Your task to perform on an android device: Open a new window in Chrome Image 0: 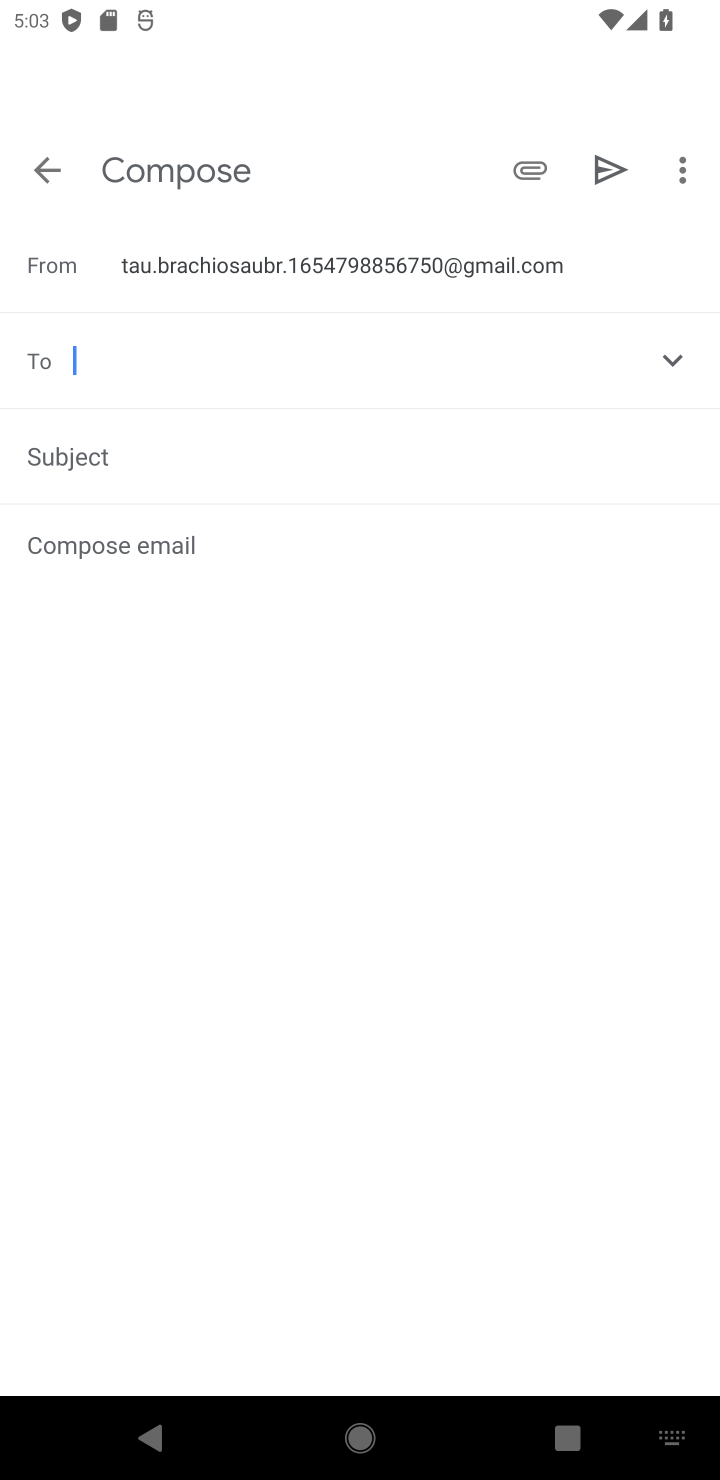
Step 0: press home button
Your task to perform on an android device: Open a new window in Chrome Image 1: 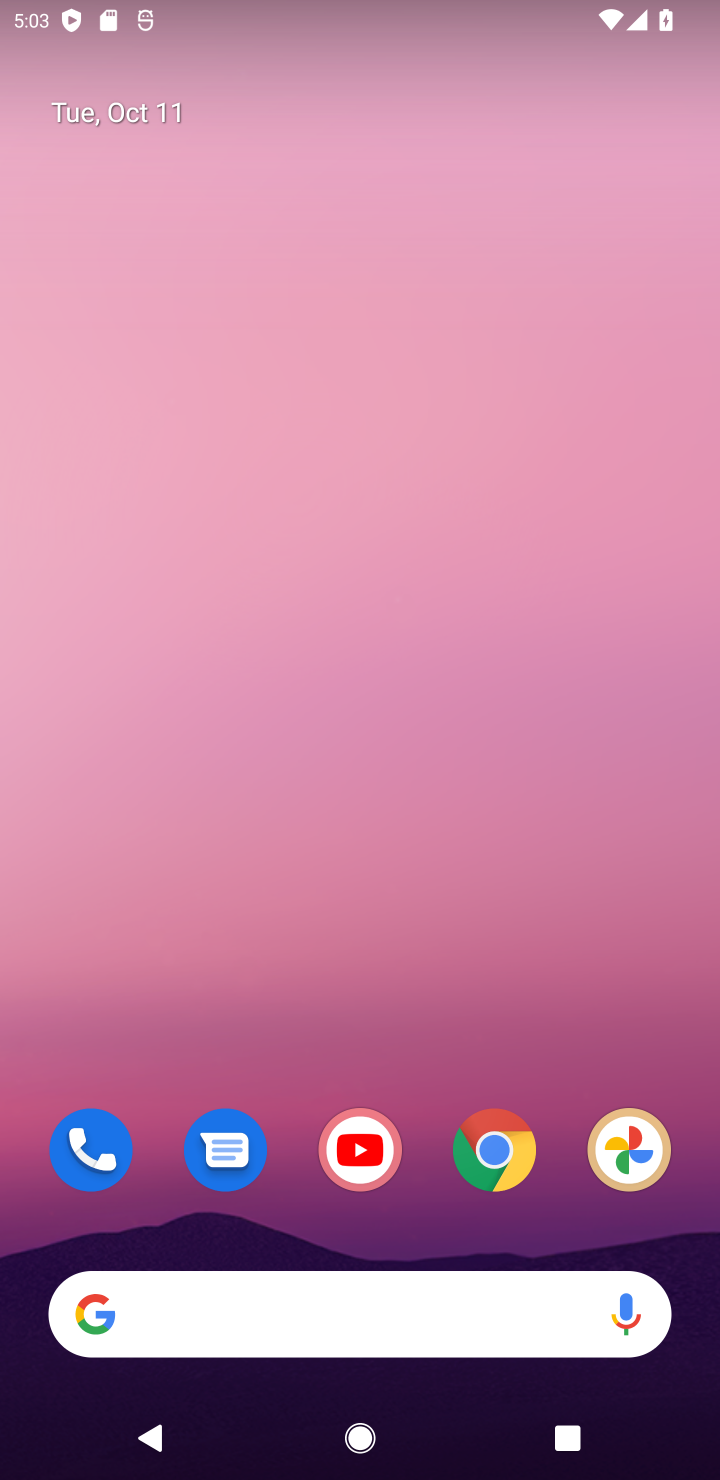
Step 1: click (506, 1151)
Your task to perform on an android device: Open a new window in Chrome Image 2: 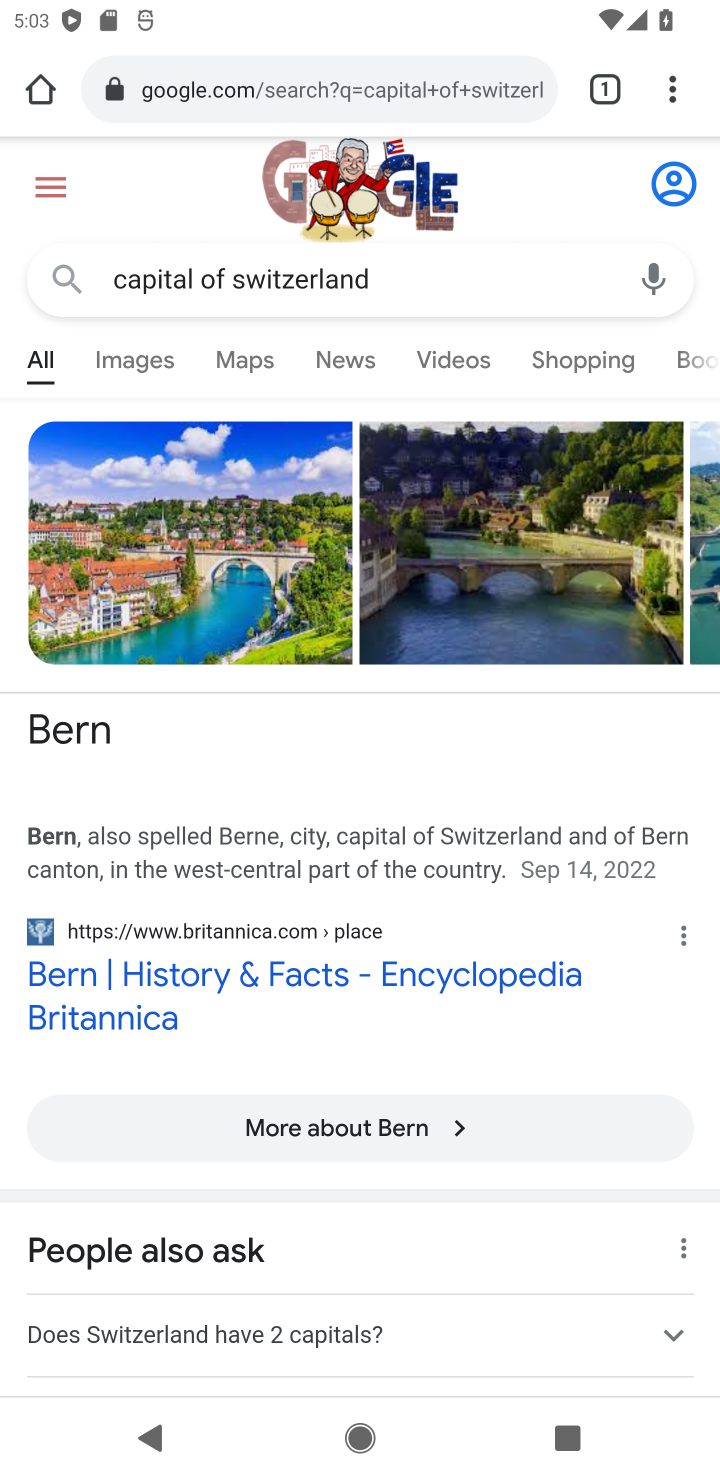
Step 2: click (674, 93)
Your task to perform on an android device: Open a new window in Chrome Image 3: 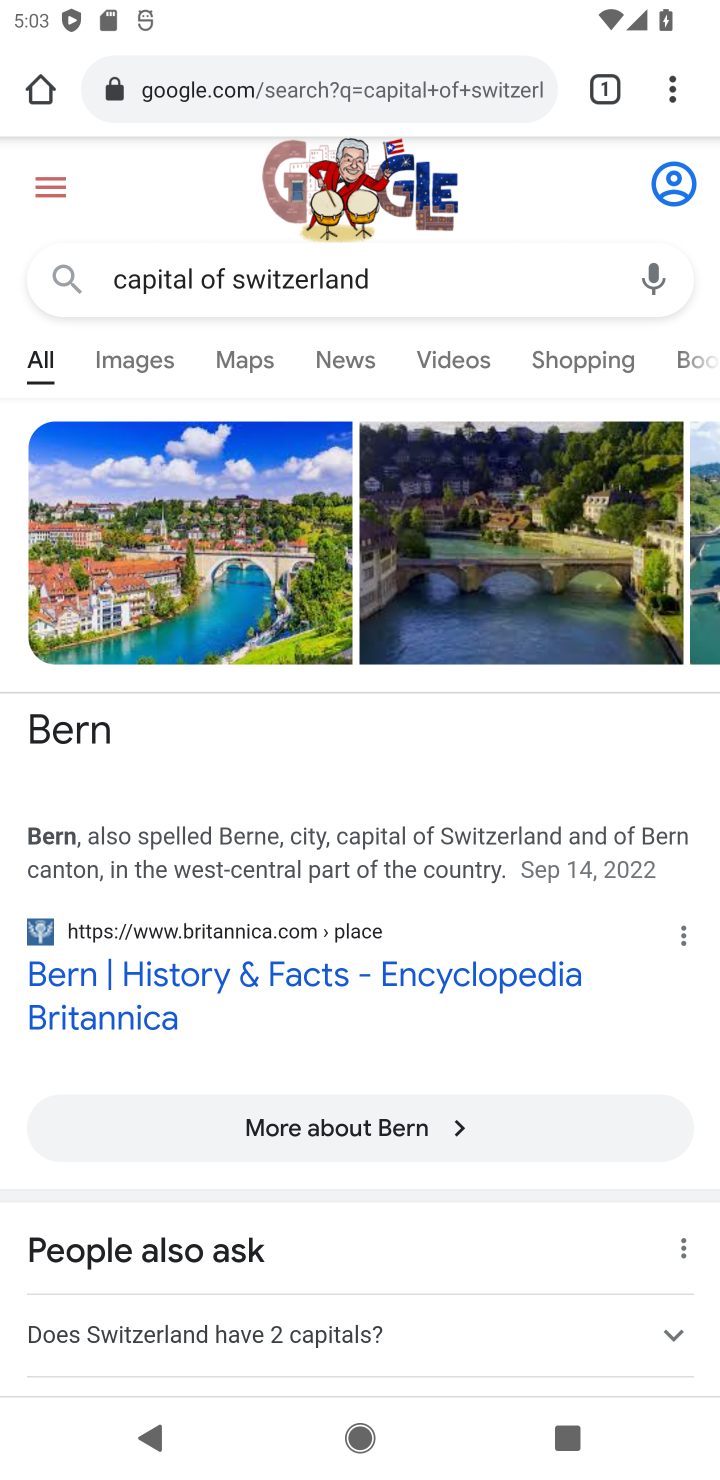
Step 3: click (674, 93)
Your task to perform on an android device: Open a new window in Chrome Image 4: 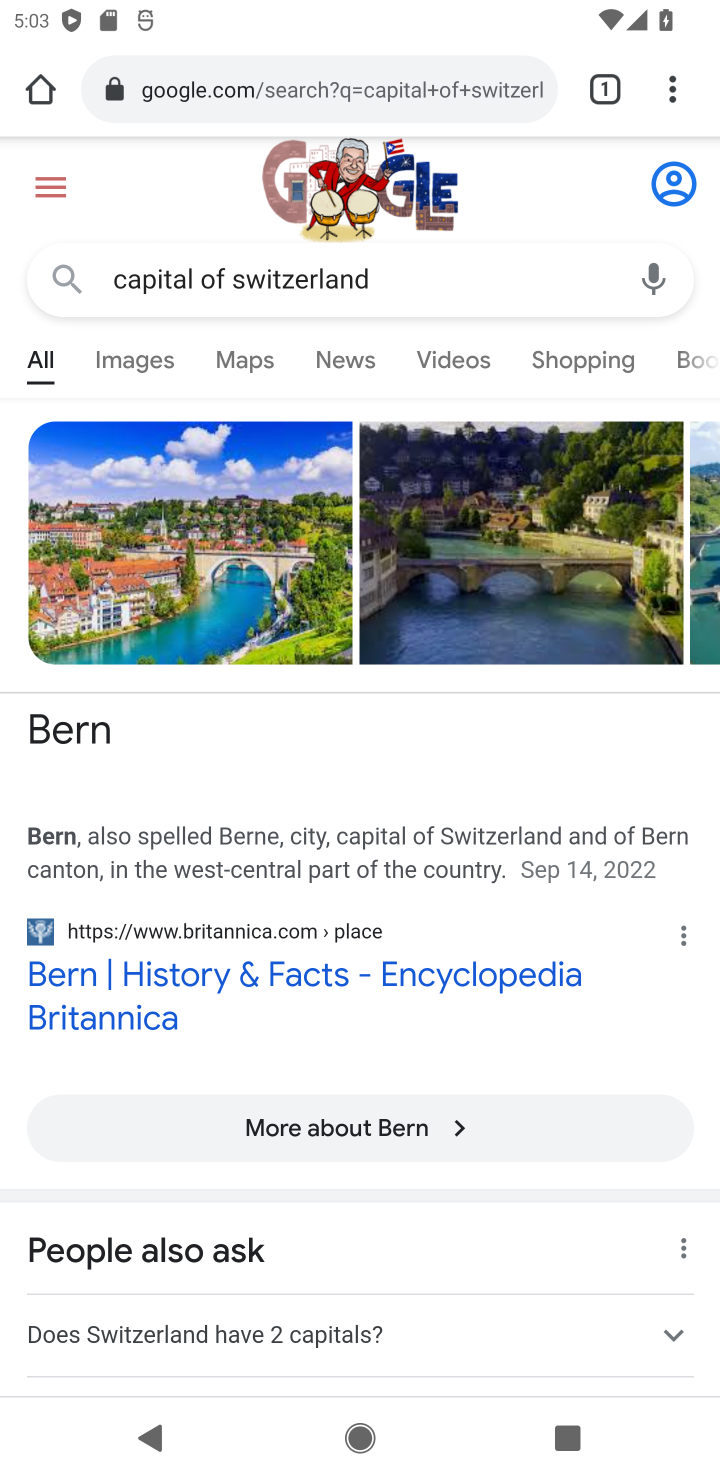
Step 4: task complete